Your task to perform on an android device: turn off notifications settings in the gmail app Image 0: 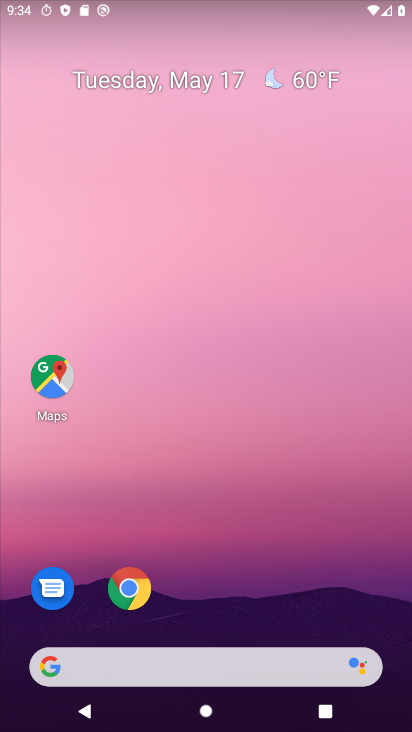
Step 0: drag from (204, 579) to (128, 98)
Your task to perform on an android device: turn off notifications settings in the gmail app Image 1: 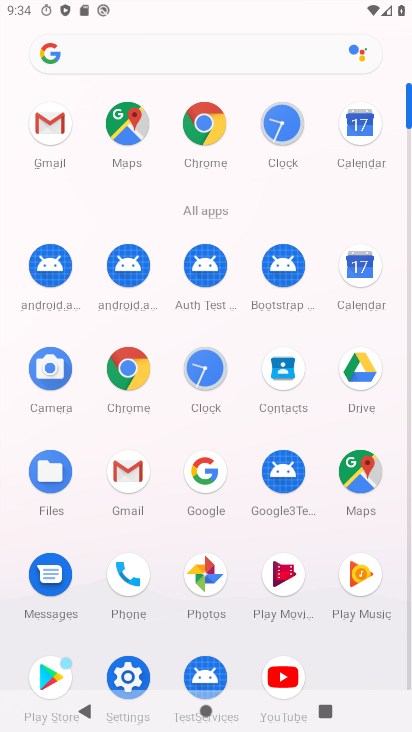
Step 1: click (120, 480)
Your task to perform on an android device: turn off notifications settings in the gmail app Image 2: 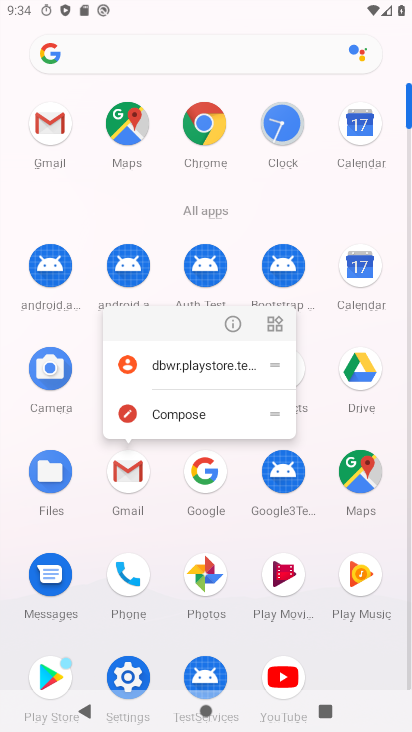
Step 2: click (126, 464)
Your task to perform on an android device: turn off notifications settings in the gmail app Image 3: 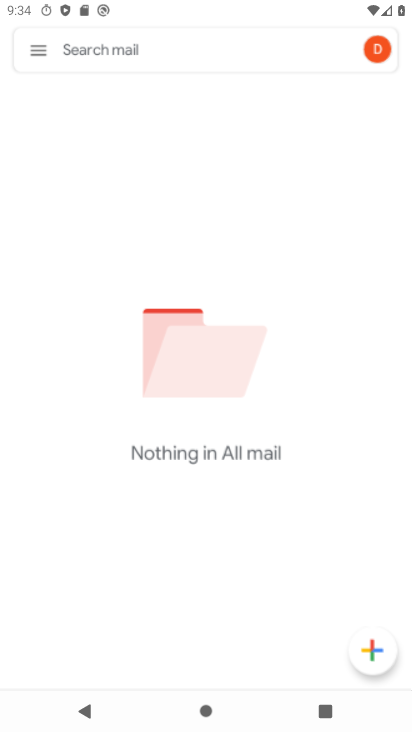
Step 3: click (125, 463)
Your task to perform on an android device: turn off notifications settings in the gmail app Image 4: 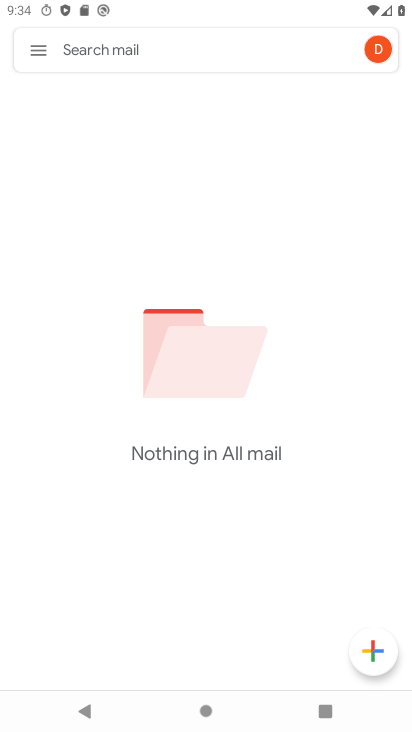
Step 4: click (35, 56)
Your task to perform on an android device: turn off notifications settings in the gmail app Image 5: 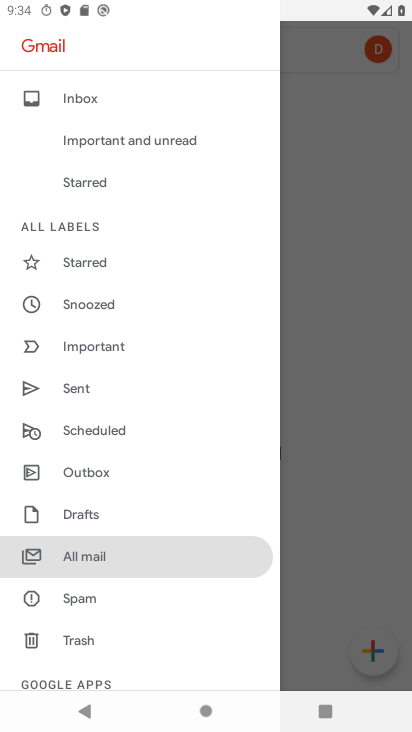
Step 5: drag from (121, 572) to (78, 255)
Your task to perform on an android device: turn off notifications settings in the gmail app Image 6: 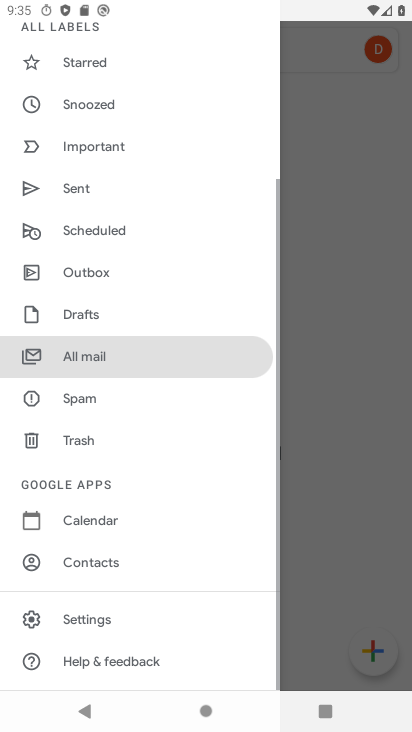
Step 6: drag from (110, 466) to (113, 184)
Your task to perform on an android device: turn off notifications settings in the gmail app Image 7: 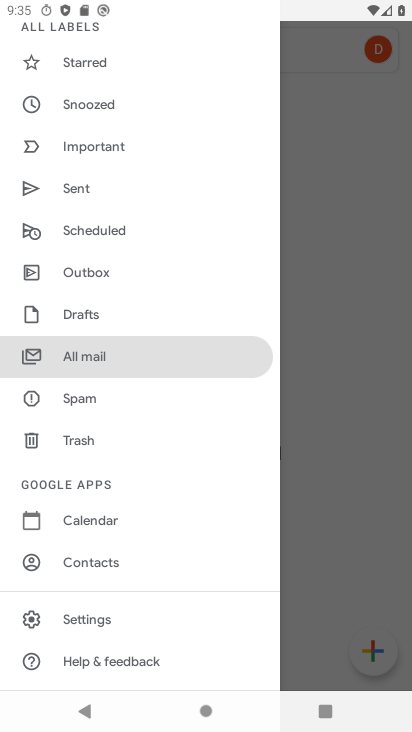
Step 7: click (86, 613)
Your task to perform on an android device: turn off notifications settings in the gmail app Image 8: 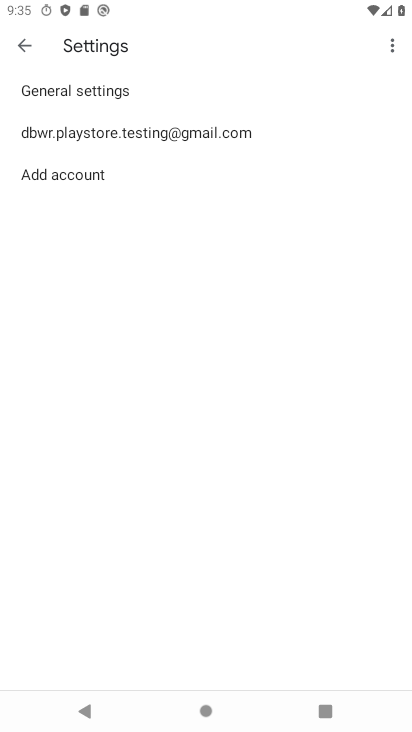
Step 8: click (139, 133)
Your task to perform on an android device: turn off notifications settings in the gmail app Image 9: 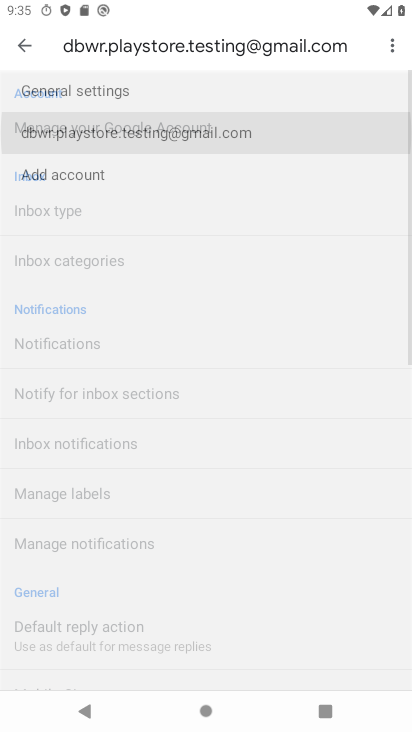
Step 9: click (106, 130)
Your task to perform on an android device: turn off notifications settings in the gmail app Image 10: 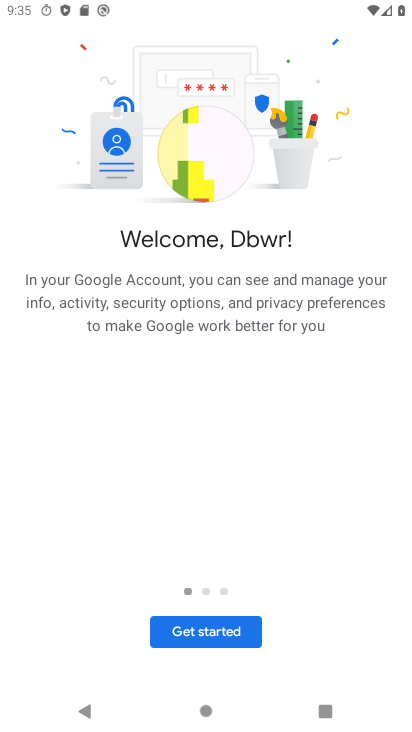
Step 10: click (205, 619)
Your task to perform on an android device: turn off notifications settings in the gmail app Image 11: 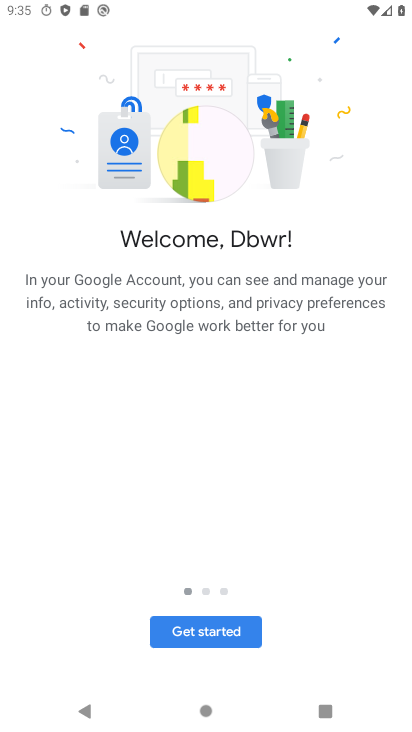
Step 11: click (205, 619)
Your task to perform on an android device: turn off notifications settings in the gmail app Image 12: 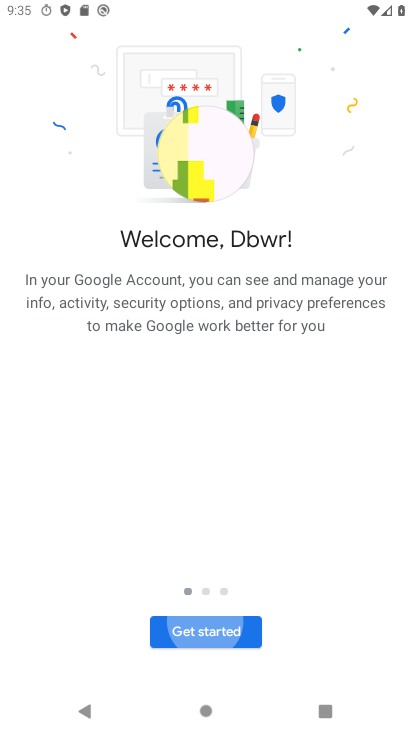
Step 12: click (203, 620)
Your task to perform on an android device: turn off notifications settings in the gmail app Image 13: 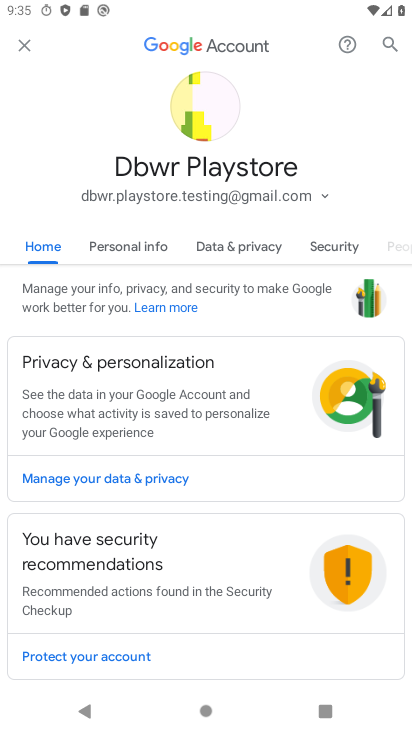
Step 13: click (302, 207)
Your task to perform on an android device: turn off notifications settings in the gmail app Image 14: 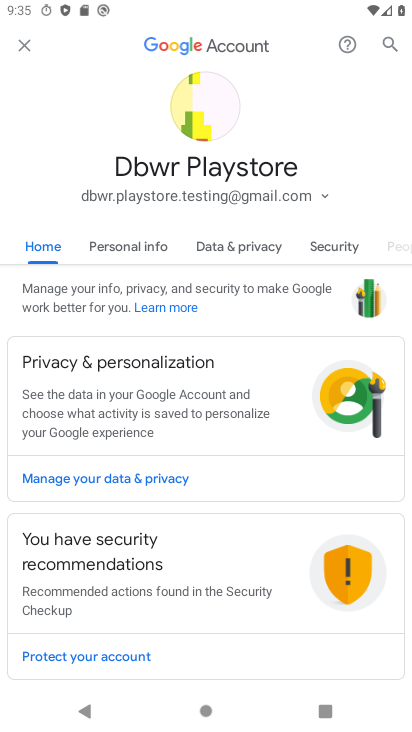
Step 14: click (28, 41)
Your task to perform on an android device: turn off notifications settings in the gmail app Image 15: 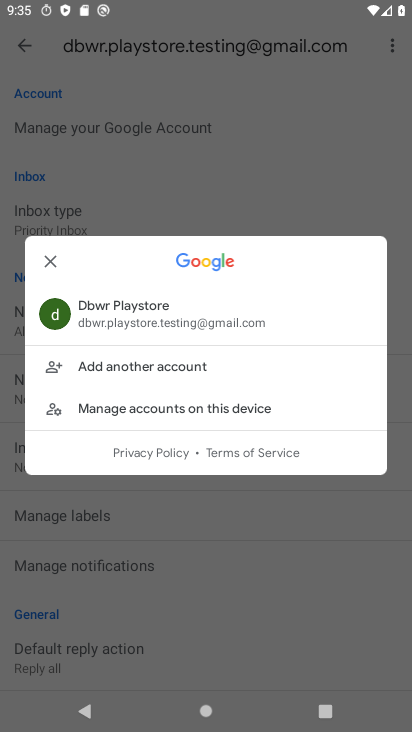
Step 15: press back button
Your task to perform on an android device: turn off notifications settings in the gmail app Image 16: 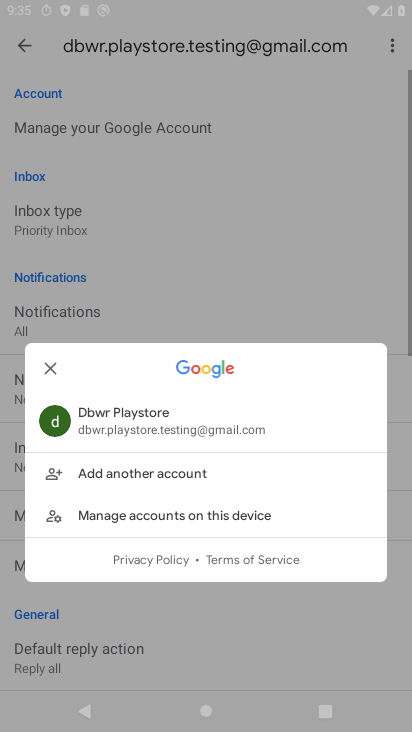
Step 16: press back button
Your task to perform on an android device: turn off notifications settings in the gmail app Image 17: 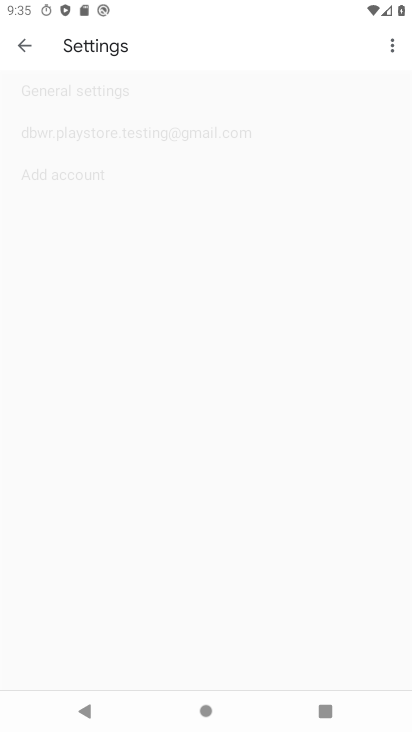
Step 17: press back button
Your task to perform on an android device: turn off notifications settings in the gmail app Image 18: 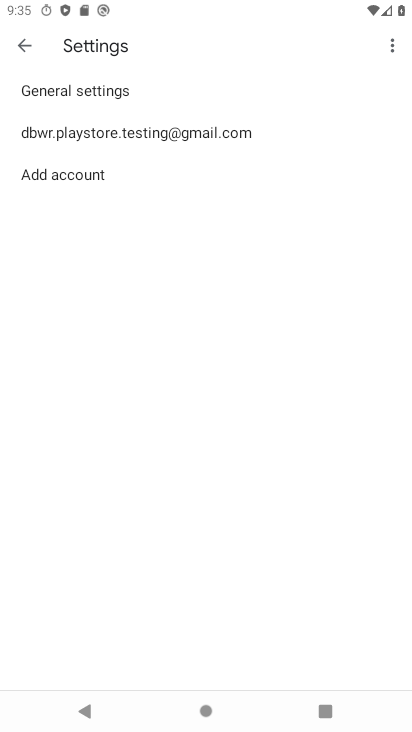
Step 18: press back button
Your task to perform on an android device: turn off notifications settings in the gmail app Image 19: 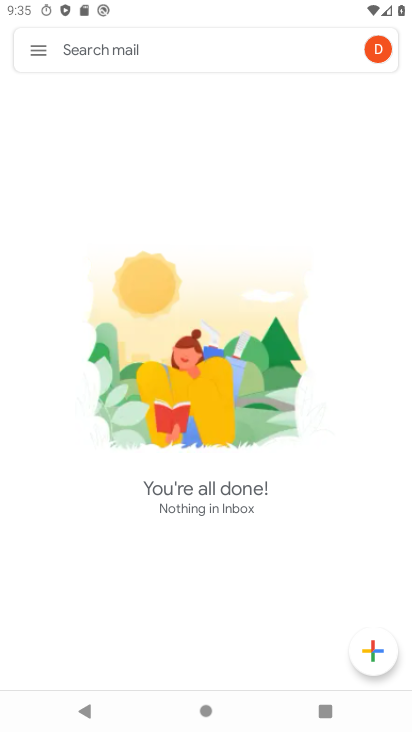
Step 19: click (30, 41)
Your task to perform on an android device: turn off notifications settings in the gmail app Image 20: 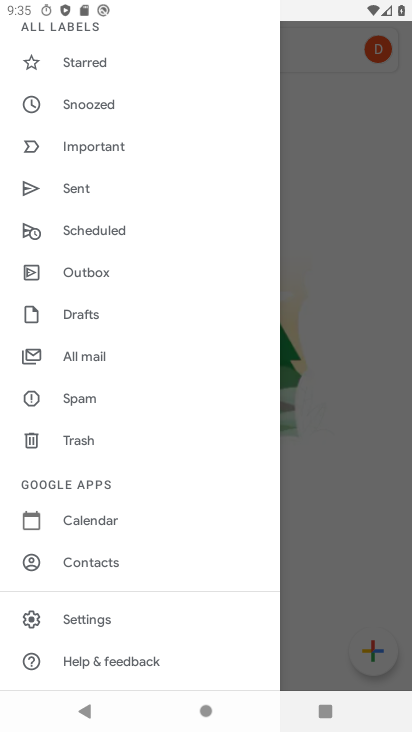
Step 20: click (86, 613)
Your task to perform on an android device: turn off notifications settings in the gmail app Image 21: 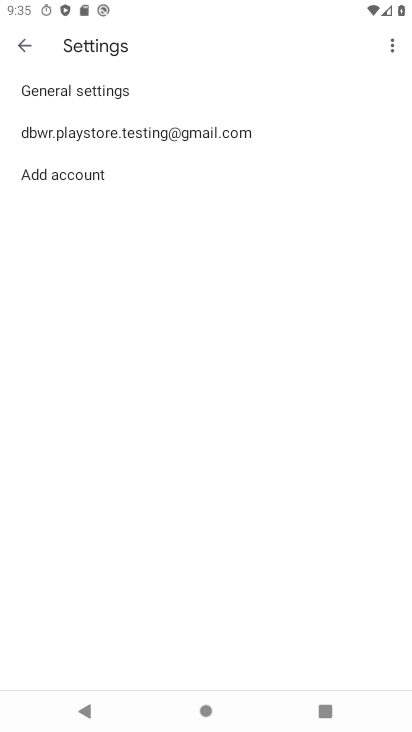
Step 21: click (118, 131)
Your task to perform on an android device: turn off notifications settings in the gmail app Image 22: 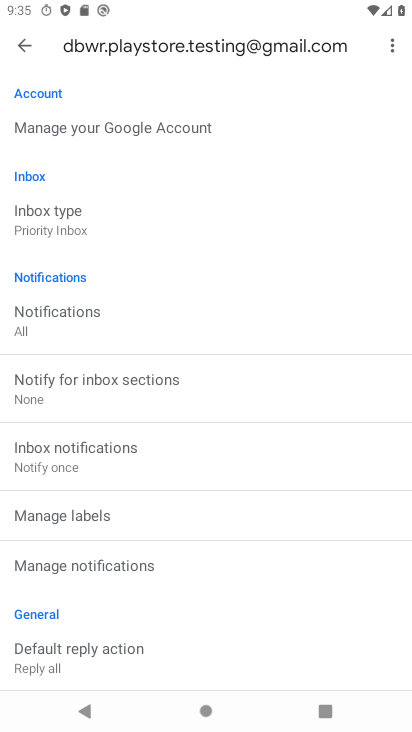
Step 22: click (54, 307)
Your task to perform on an android device: turn off notifications settings in the gmail app Image 23: 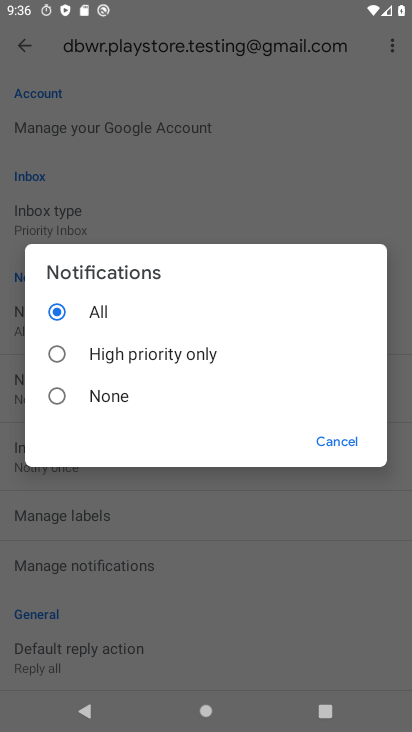
Step 23: click (65, 355)
Your task to perform on an android device: turn off notifications settings in the gmail app Image 24: 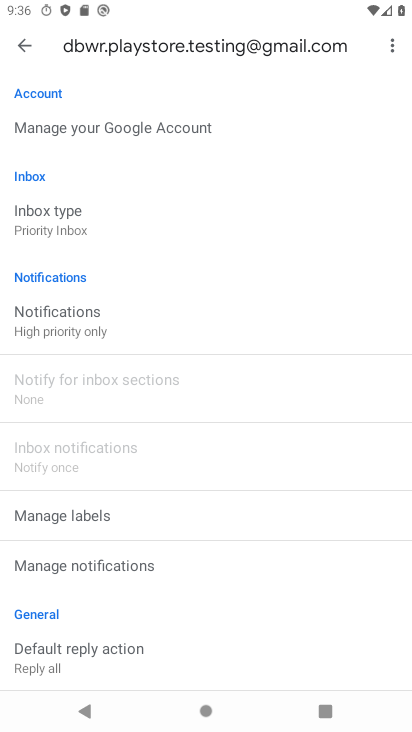
Step 24: task complete